Your task to perform on an android device: Open ESPN.com Image 0: 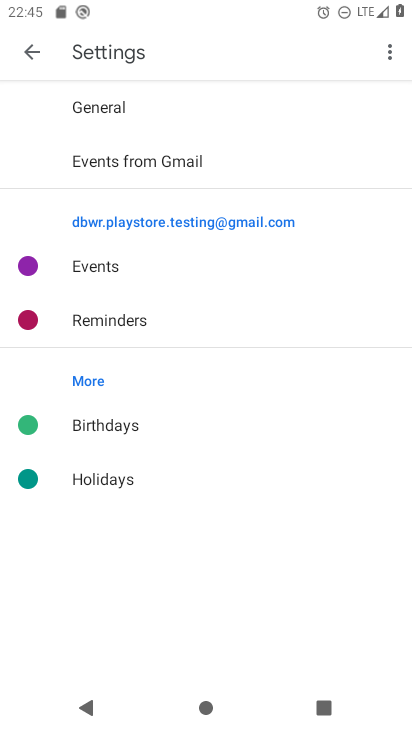
Step 0: drag from (136, 633) to (247, 298)
Your task to perform on an android device: Open ESPN.com Image 1: 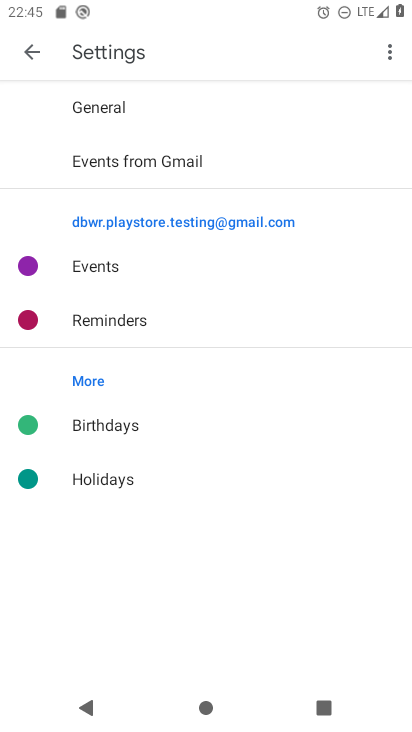
Step 1: press home button
Your task to perform on an android device: Open ESPN.com Image 2: 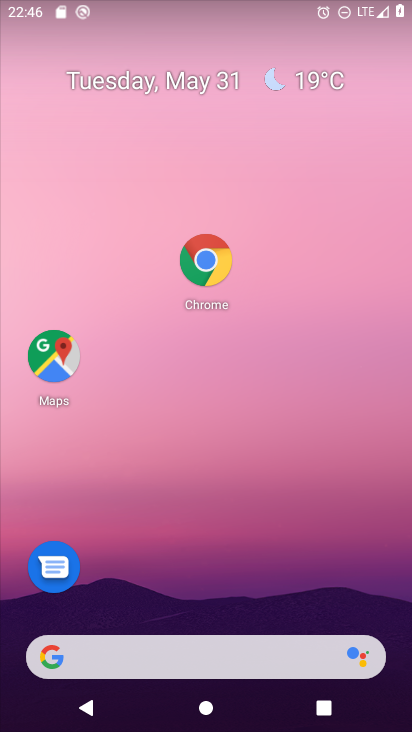
Step 2: click (219, 234)
Your task to perform on an android device: Open ESPN.com Image 3: 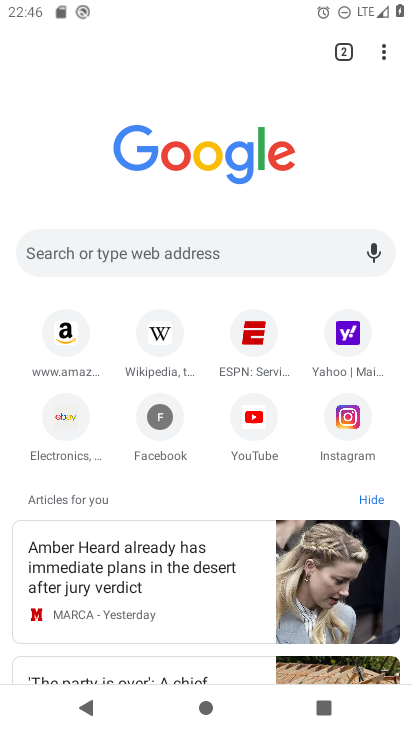
Step 3: click (263, 328)
Your task to perform on an android device: Open ESPN.com Image 4: 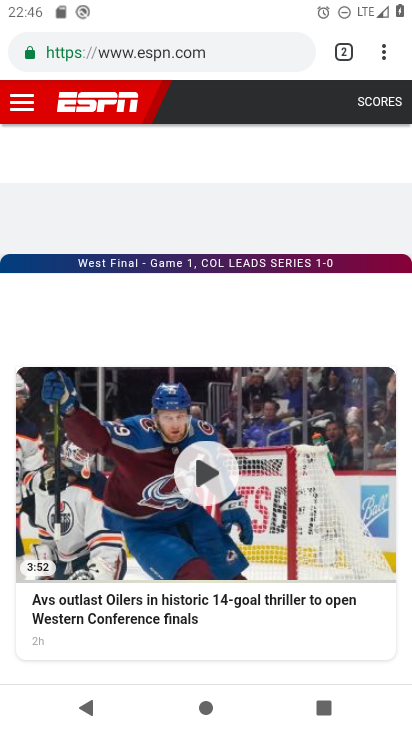
Step 4: task complete